Your task to perform on an android device: toggle priority inbox in the gmail app Image 0: 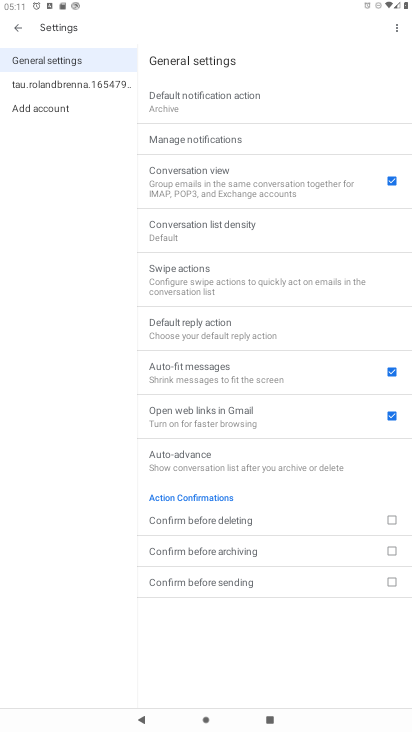
Step 0: press home button
Your task to perform on an android device: toggle priority inbox in the gmail app Image 1: 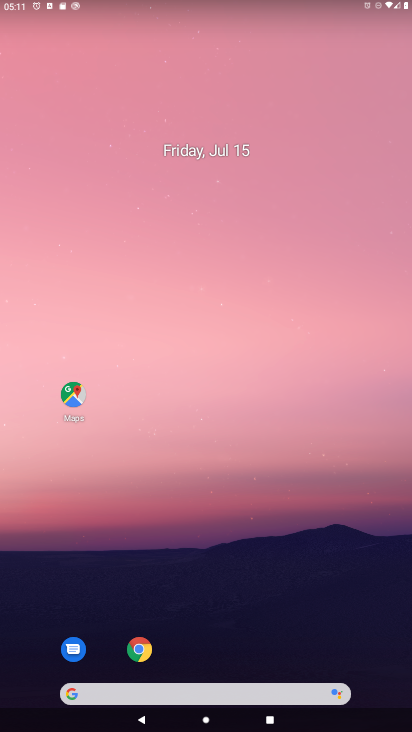
Step 1: drag from (332, 650) to (316, 100)
Your task to perform on an android device: toggle priority inbox in the gmail app Image 2: 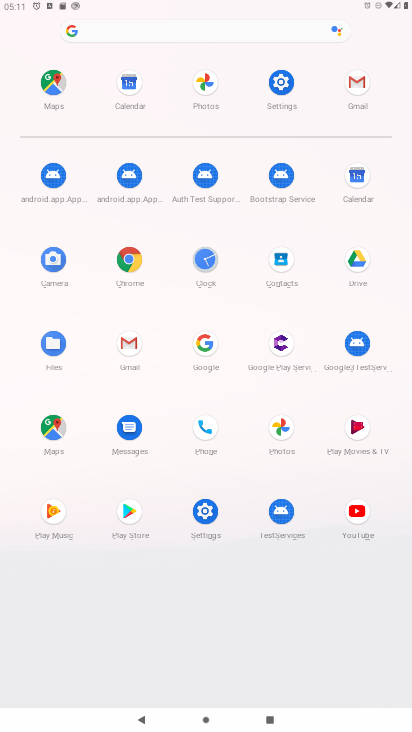
Step 2: click (125, 342)
Your task to perform on an android device: toggle priority inbox in the gmail app Image 3: 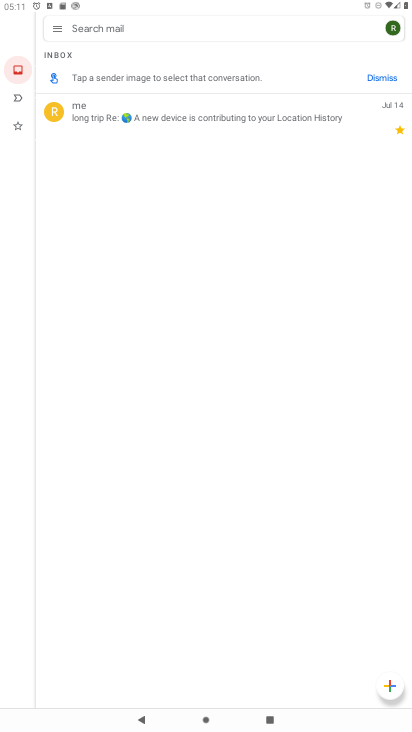
Step 3: click (53, 24)
Your task to perform on an android device: toggle priority inbox in the gmail app Image 4: 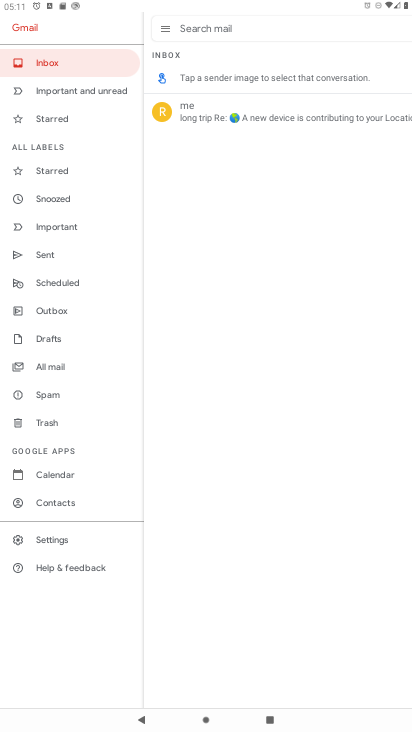
Step 4: click (52, 541)
Your task to perform on an android device: toggle priority inbox in the gmail app Image 5: 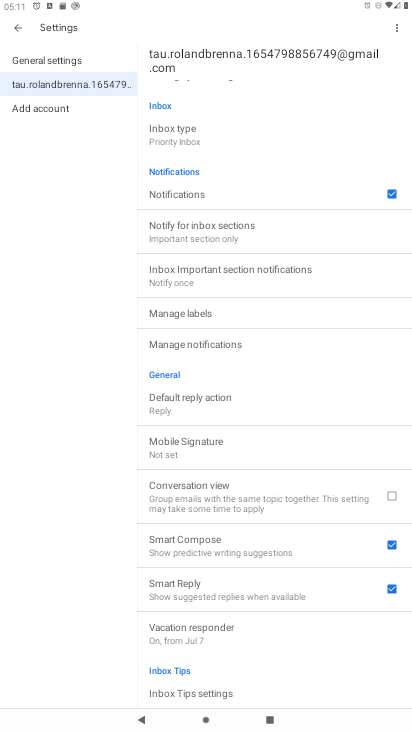
Step 5: click (179, 136)
Your task to perform on an android device: toggle priority inbox in the gmail app Image 6: 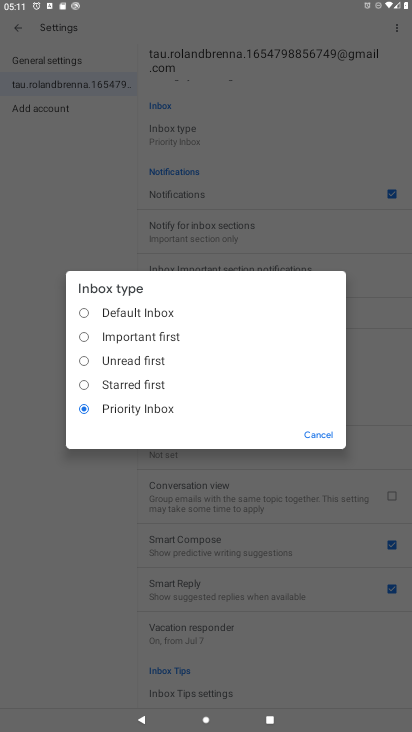
Step 6: click (86, 312)
Your task to perform on an android device: toggle priority inbox in the gmail app Image 7: 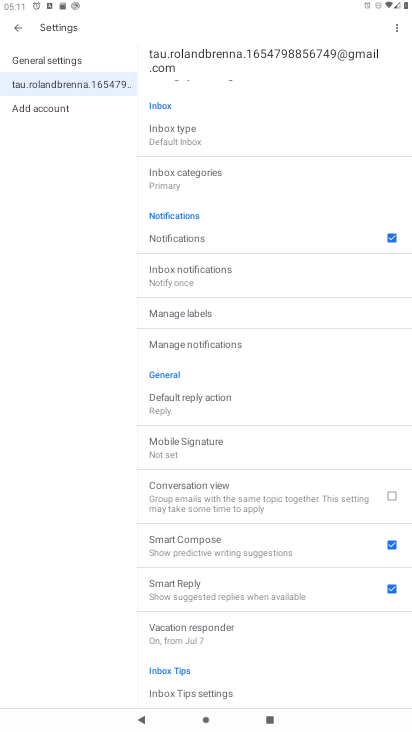
Step 7: task complete